Your task to perform on an android device: Show me popular games on the Play Store Image 0: 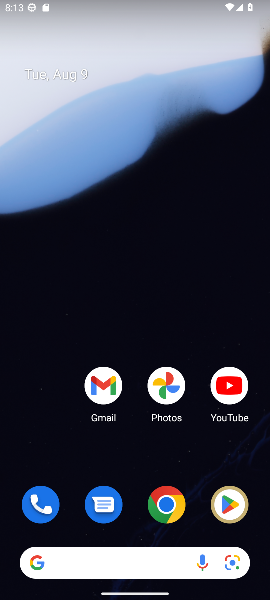
Step 0: click (239, 506)
Your task to perform on an android device: Show me popular games on the Play Store Image 1: 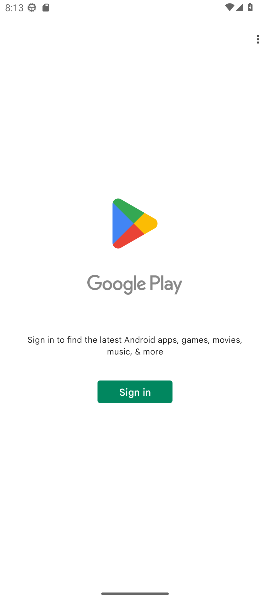
Step 1: click (124, 391)
Your task to perform on an android device: Show me popular games on the Play Store Image 2: 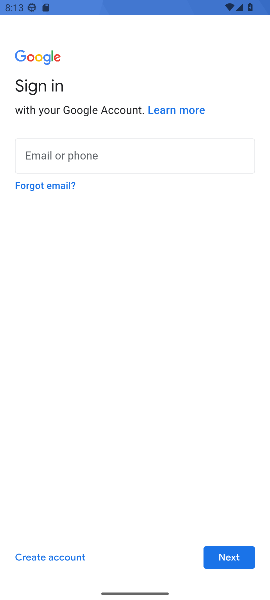
Step 2: task complete